Your task to perform on an android device: Do I have any events tomorrow? Image 0: 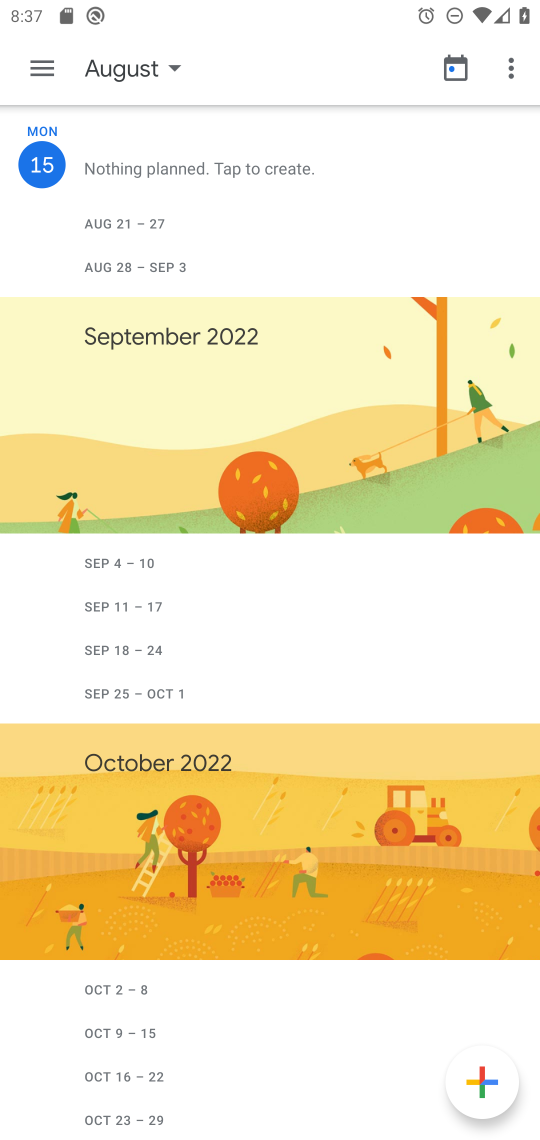
Step 0: click (163, 77)
Your task to perform on an android device: Do I have any events tomorrow? Image 1: 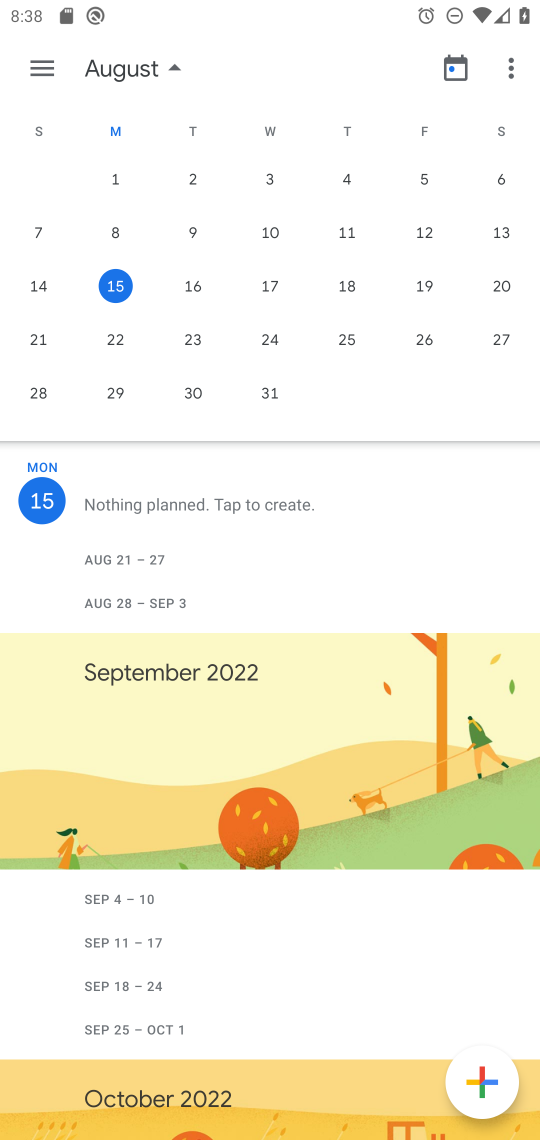
Step 1: click (193, 278)
Your task to perform on an android device: Do I have any events tomorrow? Image 2: 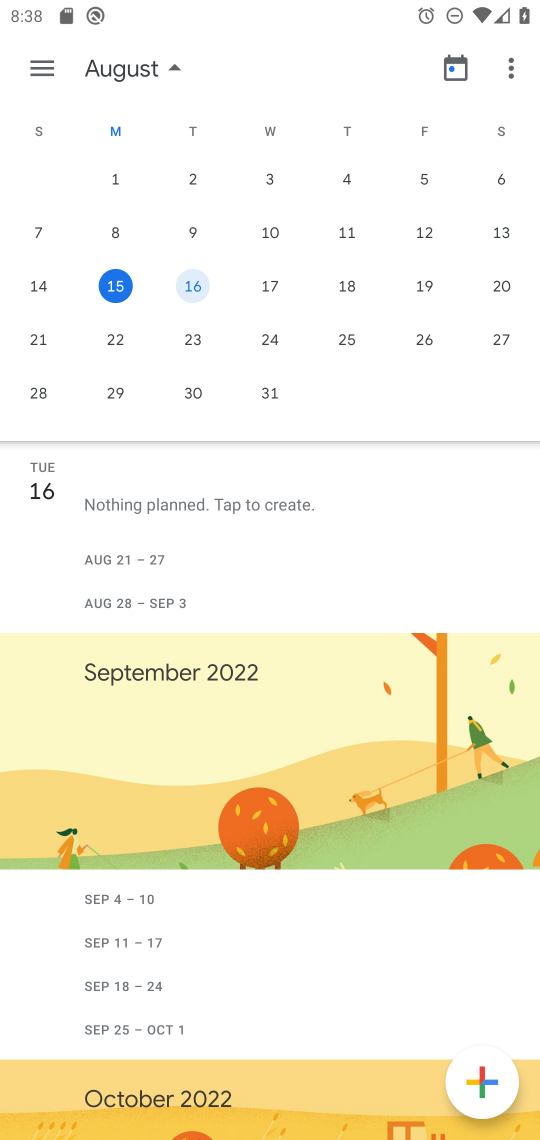
Step 2: click (51, 69)
Your task to perform on an android device: Do I have any events tomorrow? Image 3: 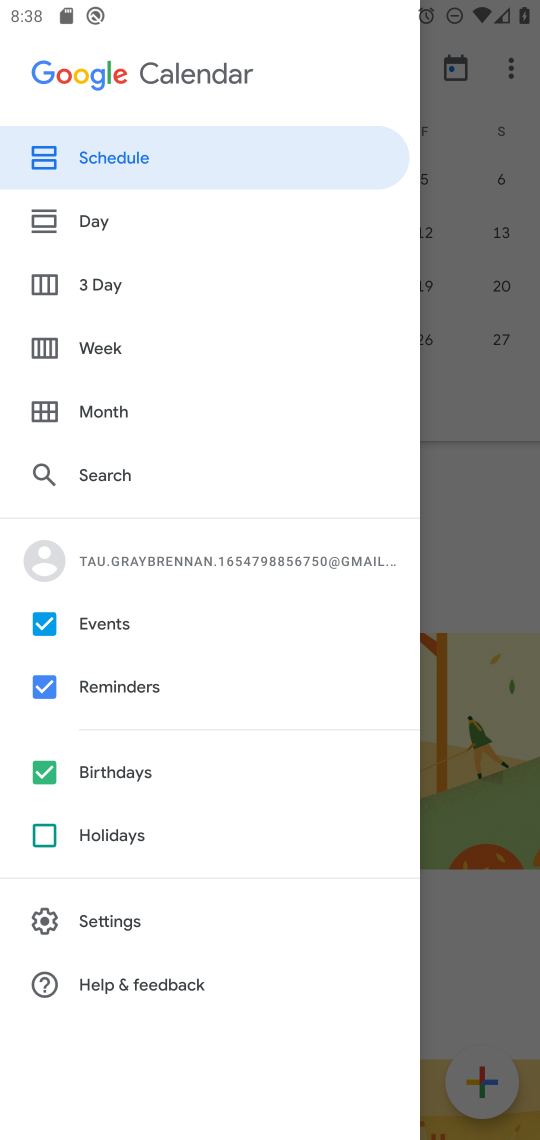
Step 3: click (43, 679)
Your task to perform on an android device: Do I have any events tomorrow? Image 4: 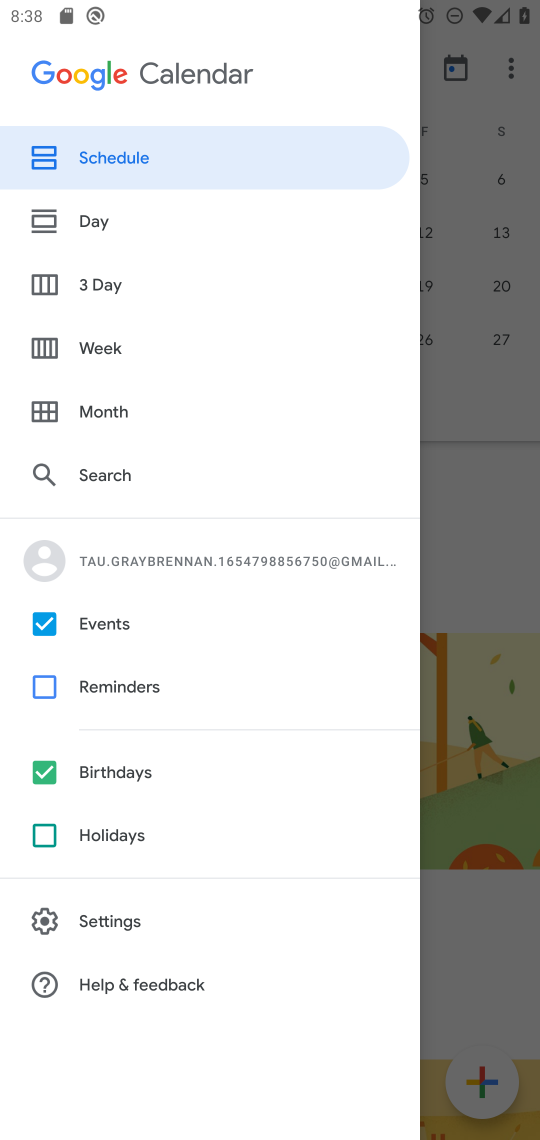
Step 4: click (45, 774)
Your task to perform on an android device: Do I have any events tomorrow? Image 5: 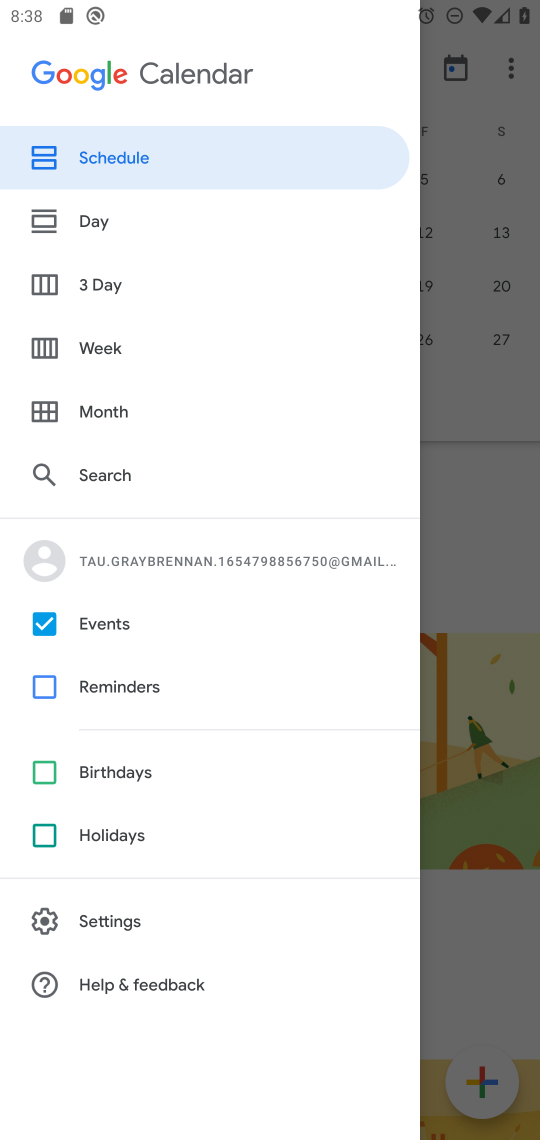
Step 5: click (71, 237)
Your task to perform on an android device: Do I have any events tomorrow? Image 6: 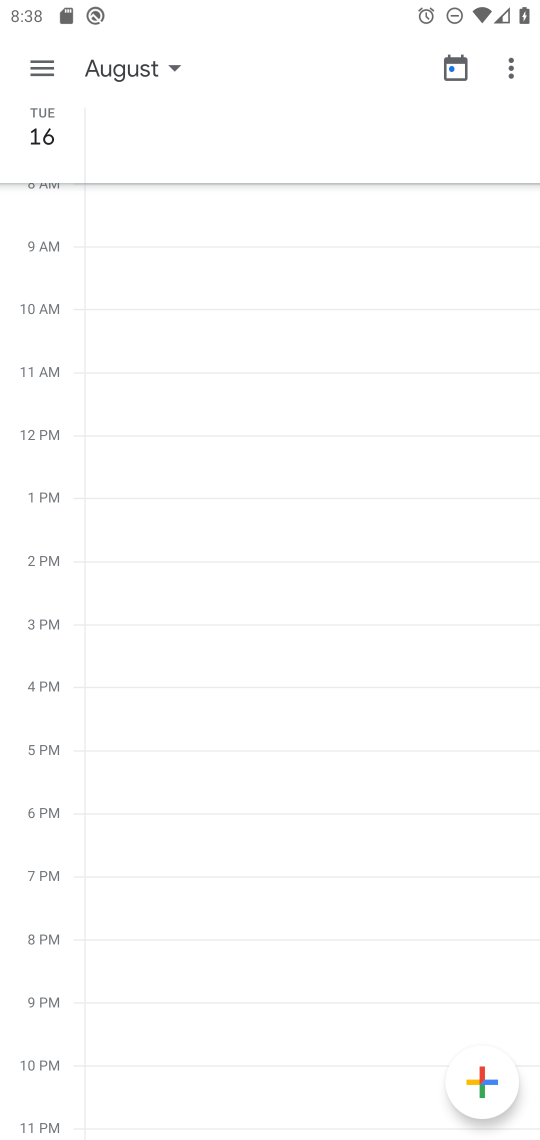
Step 6: task complete